Your task to perform on an android device: Go to calendar. Show me events next week Image 0: 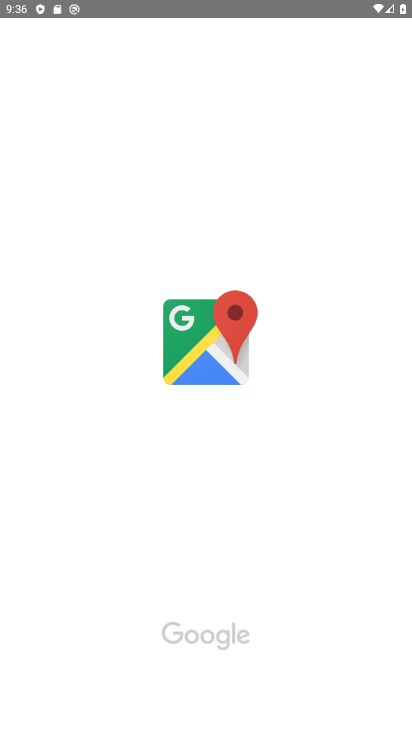
Step 0: press home button
Your task to perform on an android device: Go to calendar. Show me events next week Image 1: 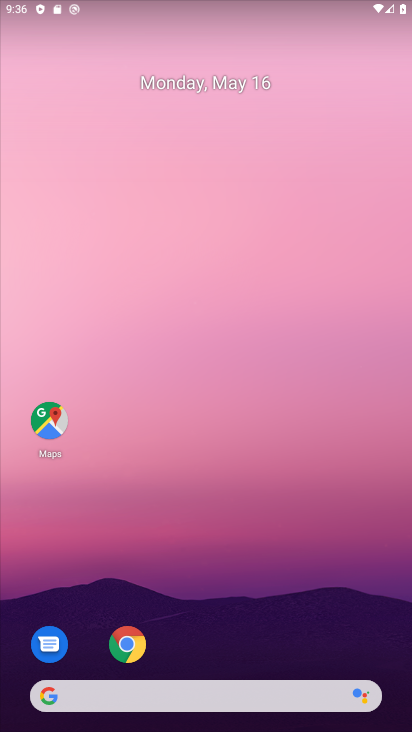
Step 1: drag from (97, 726) to (272, 142)
Your task to perform on an android device: Go to calendar. Show me events next week Image 2: 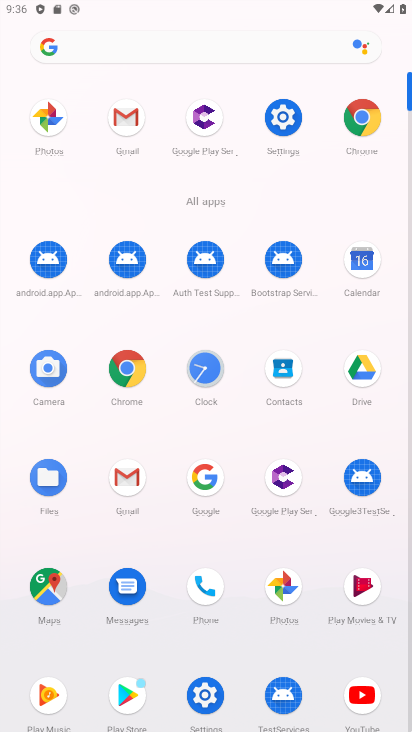
Step 2: click (358, 253)
Your task to perform on an android device: Go to calendar. Show me events next week Image 3: 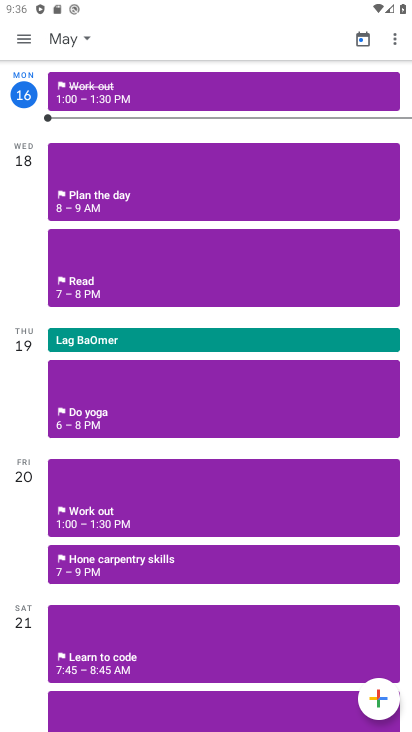
Step 3: click (77, 39)
Your task to perform on an android device: Go to calendar. Show me events next week Image 4: 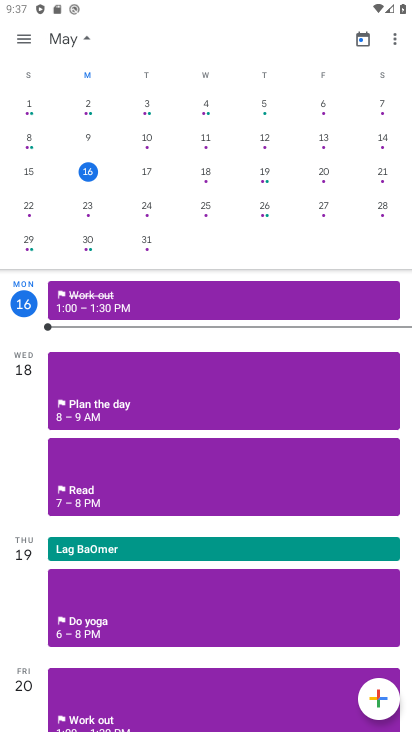
Step 4: task complete